Your task to perform on an android device: Open location settings Image 0: 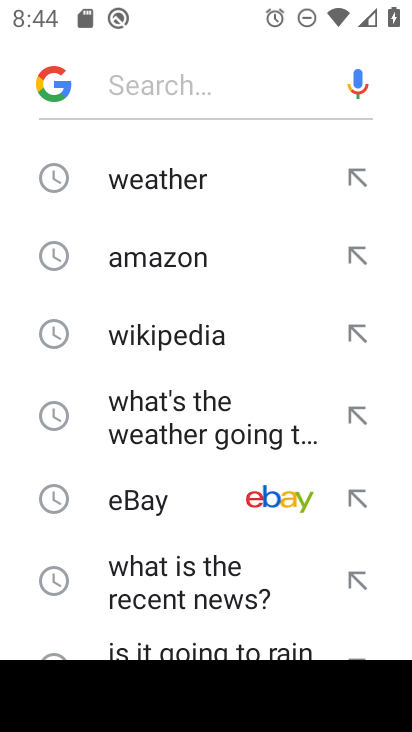
Step 0: press home button
Your task to perform on an android device: Open location settings Image 1: 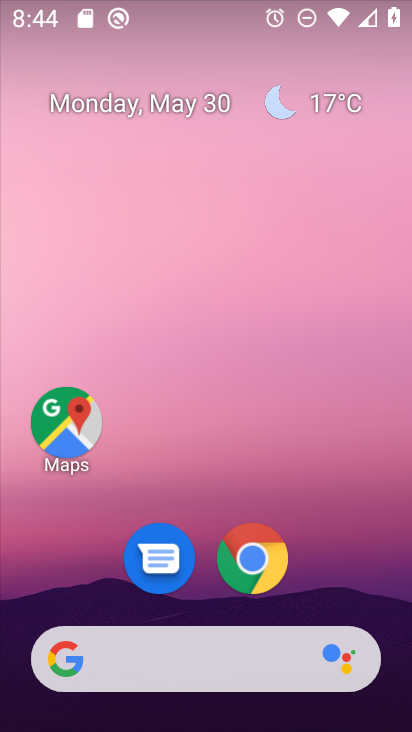
Step 1: drag from (336, 527) to (202, 129)
Your task to perform on an android device: Open location settings Image 2: 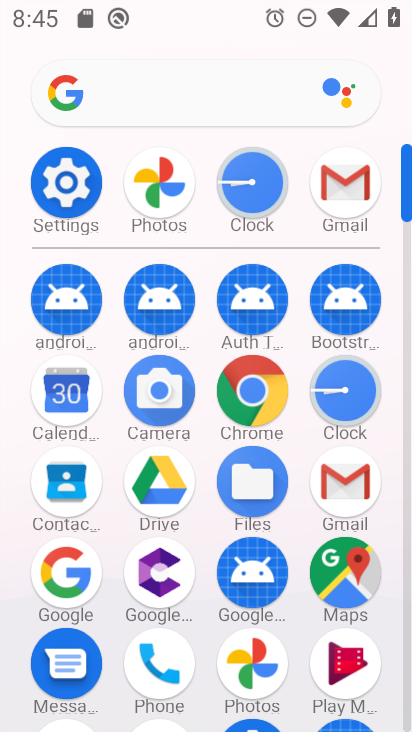
Step 2: click (66, 180)
Your task to perform on an android device: Open location settings Image 3: 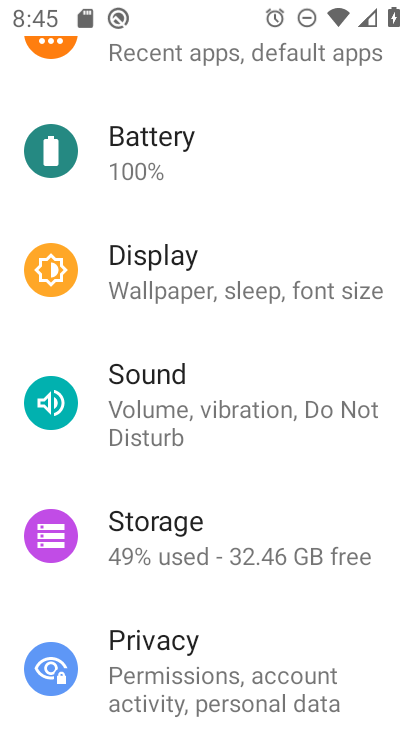
Step 3: drag from (216, 594) to (153, 284)
Your task to perform on an android device: Open location settings Image 4: 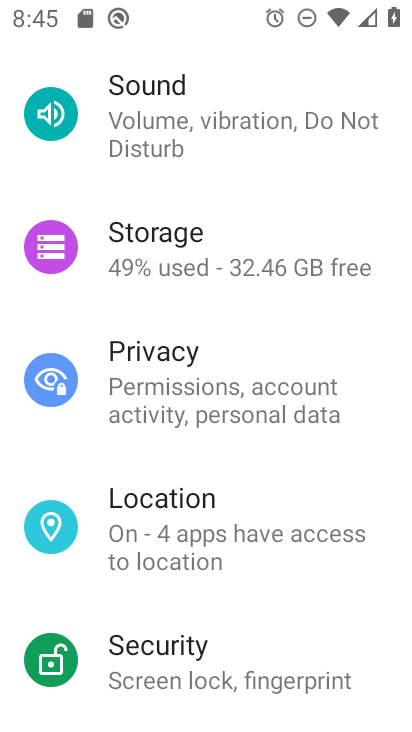
Step 4: click (154, 497)
Your task to perform on an android device: Open location settings Image 5: 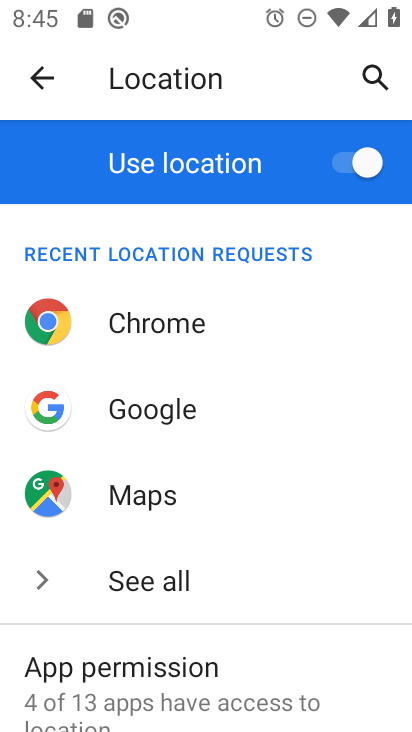
Step 5: task complete